Your task to perform on an android device: Open calendar and show me the second week of next month Image 0: 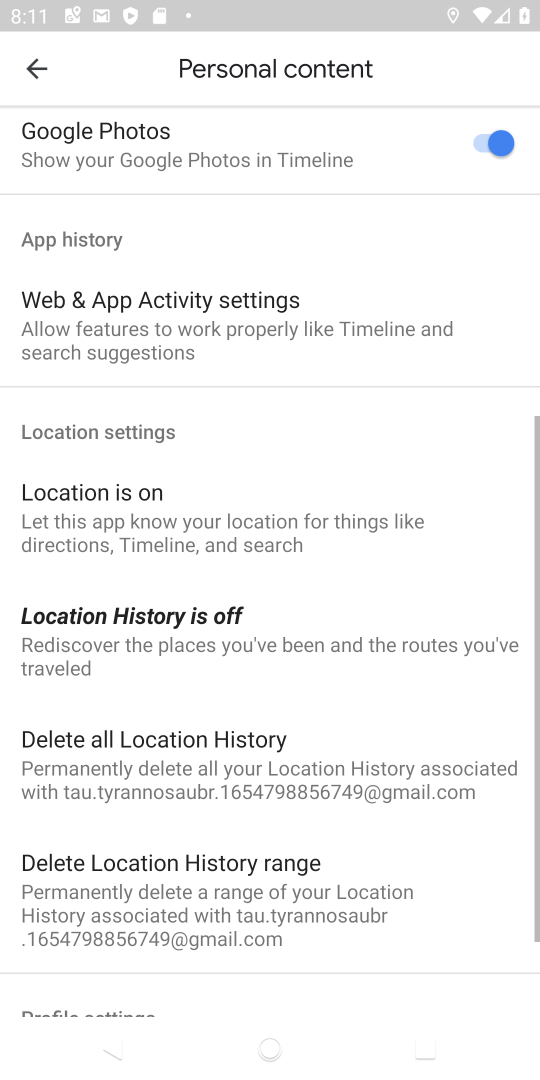
Step 0: press home button
Your task to perform on an android device: Open calendar and show me the second week of next month Image 1: 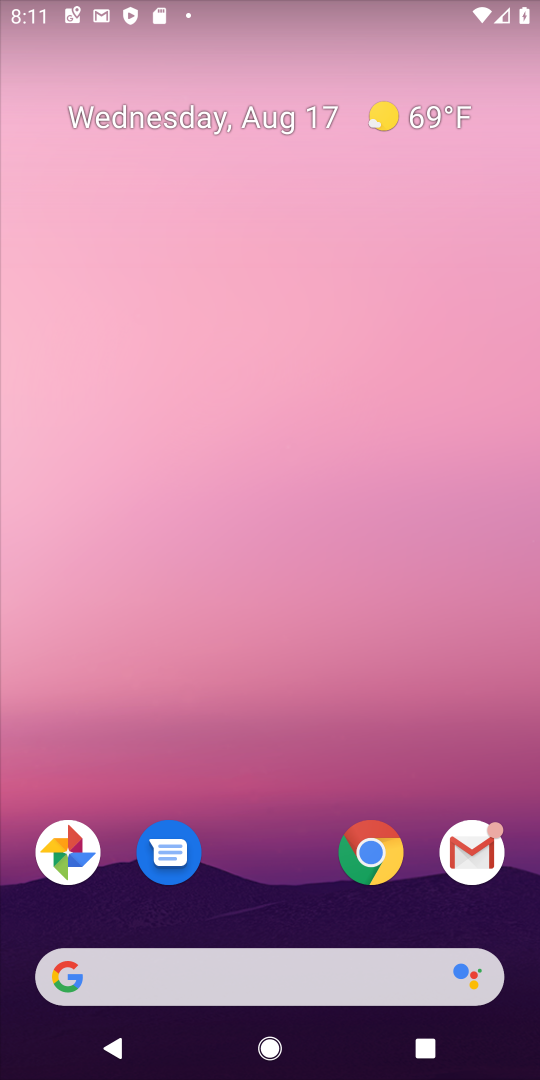
Step 1: drag from (250, 909) to (196, 328)
Your task to perform on an android device: Open calendar and show me the second week of next month Image 2: 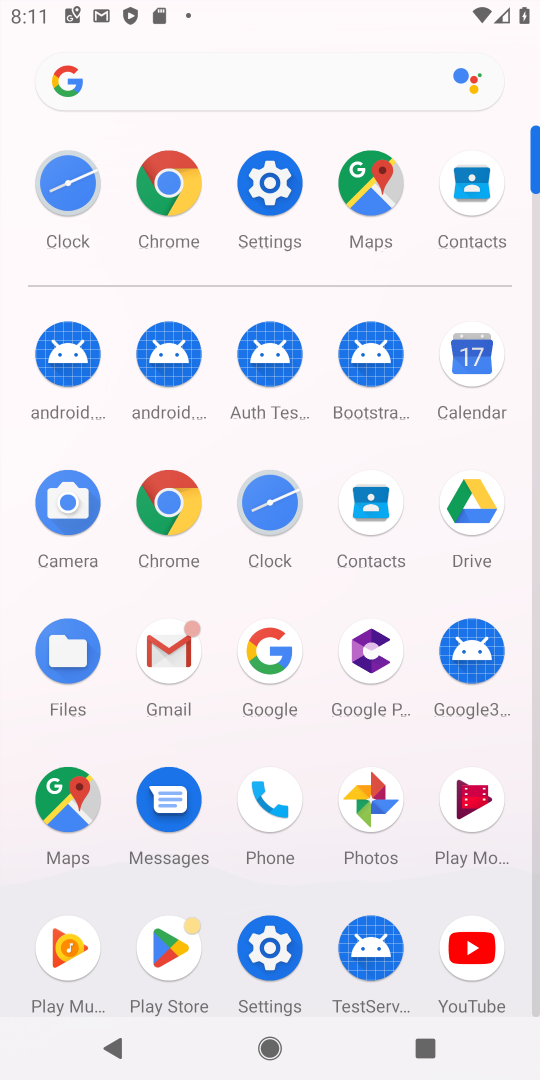
Step 2: click (465, 348)
Your task to perform on an android device: Open calendar and show me the second week of next month Image 3: 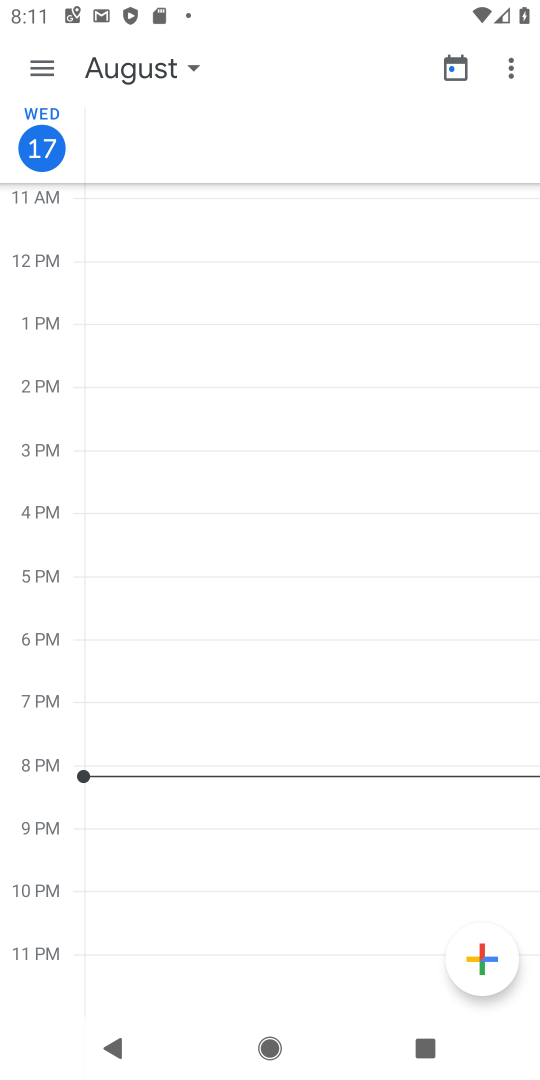
Step 3: click (40, 65)
Your task to perform on an android device: Open calendar and show me the second week of next month Image 4: 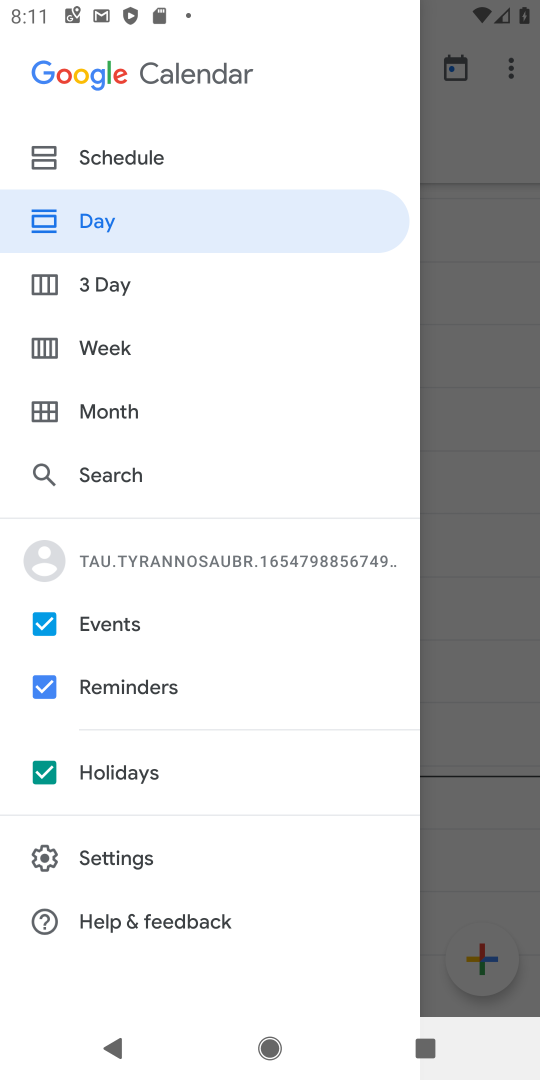
Step 4: click (99, 332)
Your task to perform on an android device: Open calendar and show me the second week of next month Image 5: 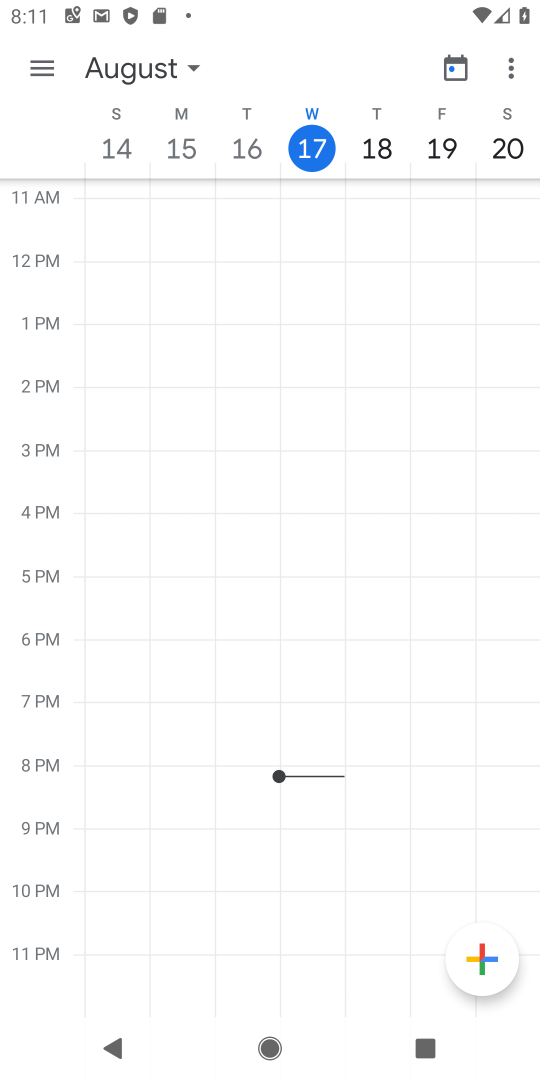
Step 5: click (189, 63)
Your task to perform on an android device: Open calendar and show me the second week of next month Image 6: 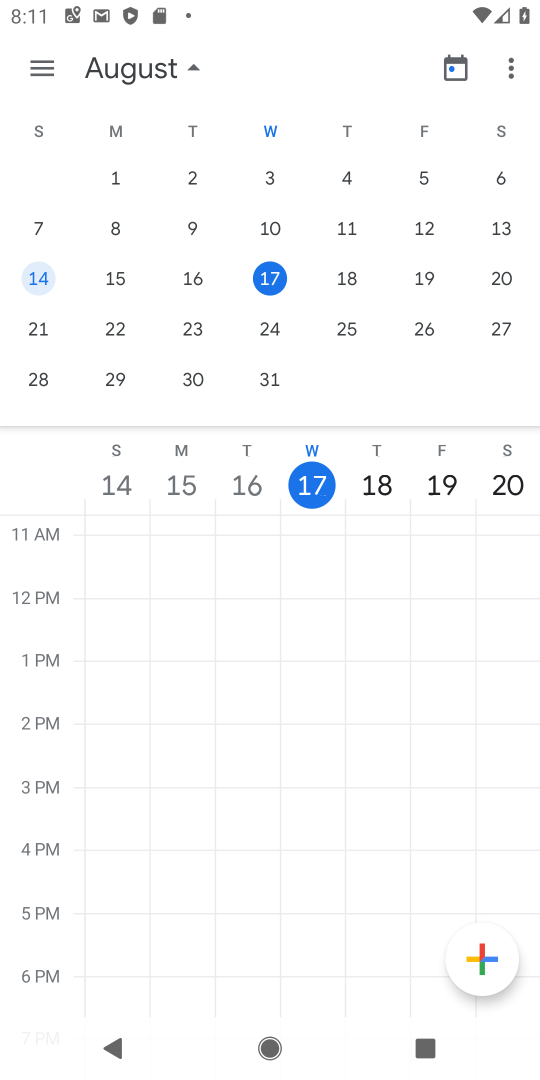
Step 6: drag from (474, 274) to (92, 183)
Your task to perform on an android device: Open calendar and show me the second week of next month Image 7: 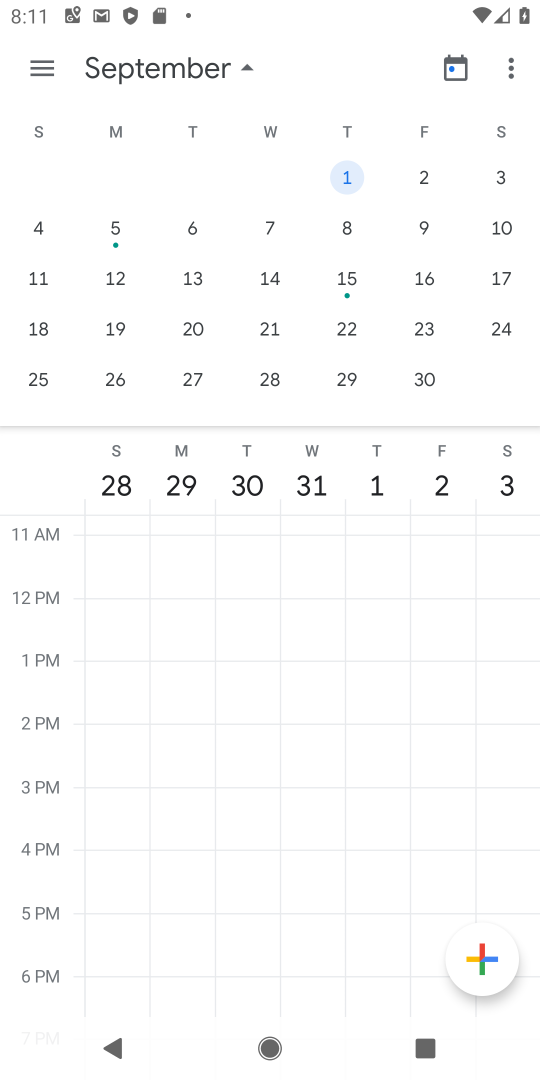
Step 7: click (274, 224)
Your task to perform on an android device: Open calendar and show me the second week of next month Image 8: 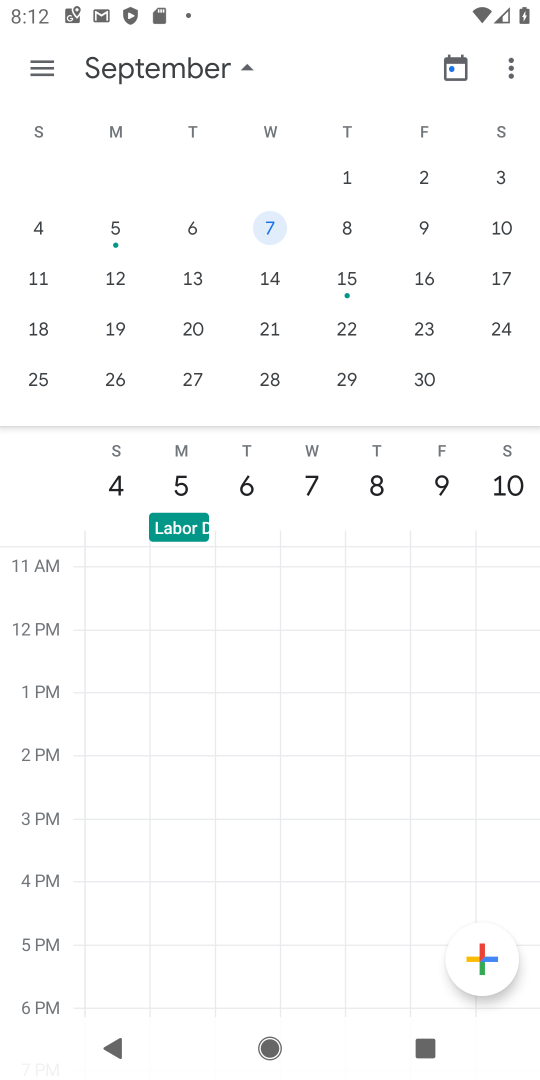
Step 8: task complete